Your task to perform on an android device: Open Google Maps Image 0: 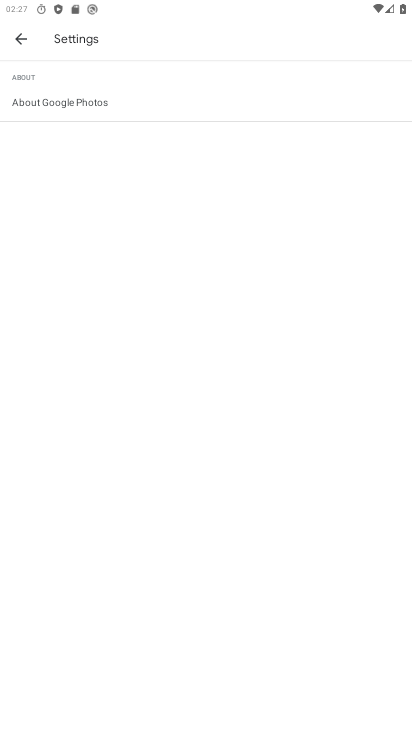
Step 0: task complete